Your task to perform on an android device: Open Google Chrome and click the shortcut for Amazon.com Image 0: 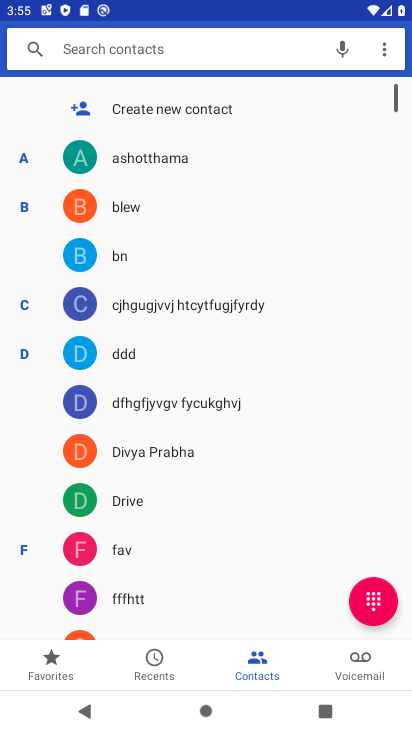
Step 0: press home button
Your task to perform on an android device: Open Google Chrome and click the shortcut for Amazon.com Image 1: 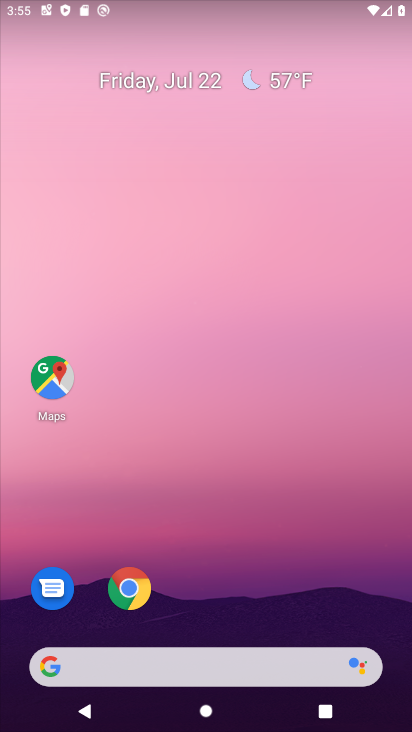
Step 1: drag from (204, 336) to (171, 5)
Your task to perform on an android device: Open Google Chrome and click the shortcut for Amazon.com Image 2: 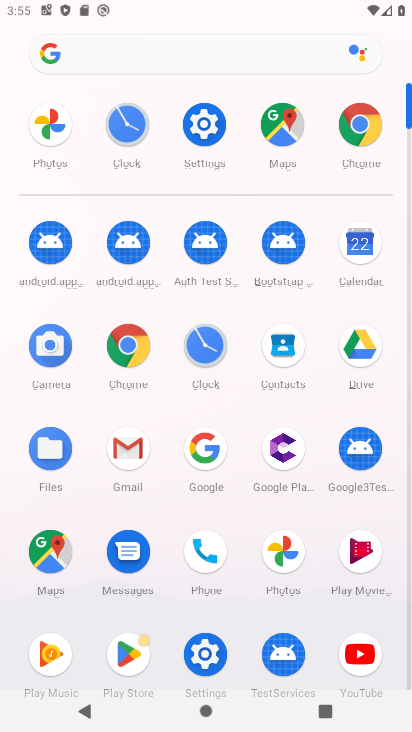
Step 2: click (373, 118)
Your task to perform on an android device: Open Google Chrome and click the shortcut for Amazon.com Image 3: 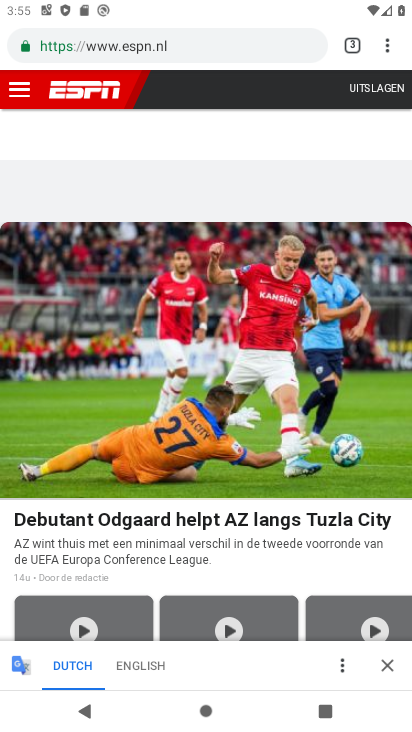
Step 3: click (347, 51)
Your task to perform on an android device: Open Google Chrome and click the shortcut for Amazon.com Image 4: 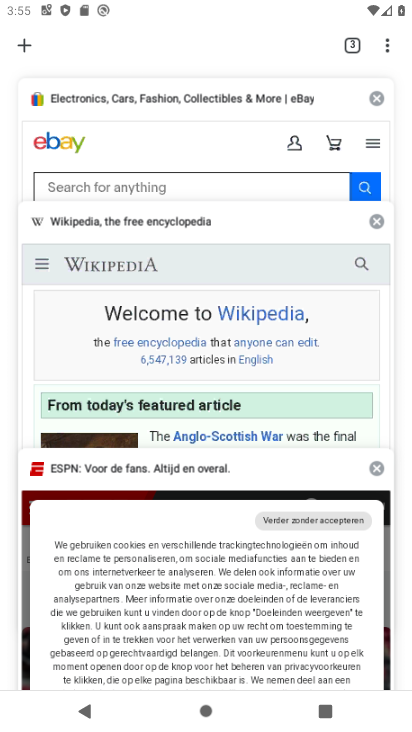
Step 4: click (33, 39)
Your task to perform on an android device: Open Google Chrome and click the shortcut for Amazon.com Image 5: 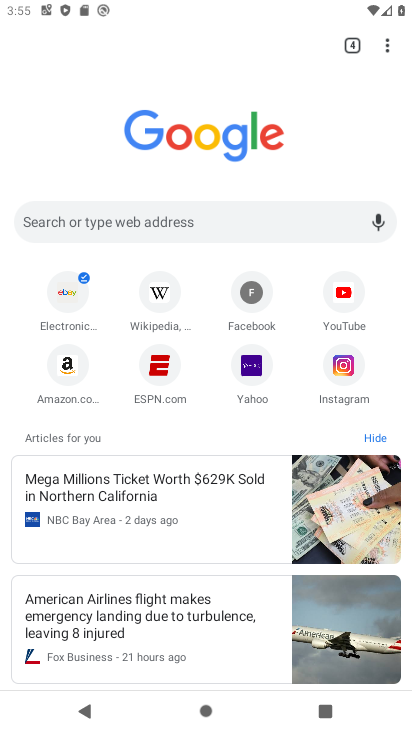
Step 5: click (73, 364)
Your task to perform on an android device: Open Google Chrome and click the shortcut for Amazon.com Image 6: 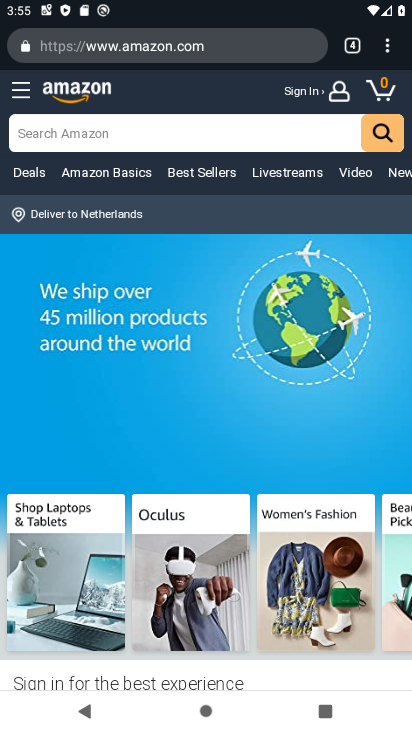
Step 6: task complete